Your task to perform on an android device: When is my next meeting? Image 0: 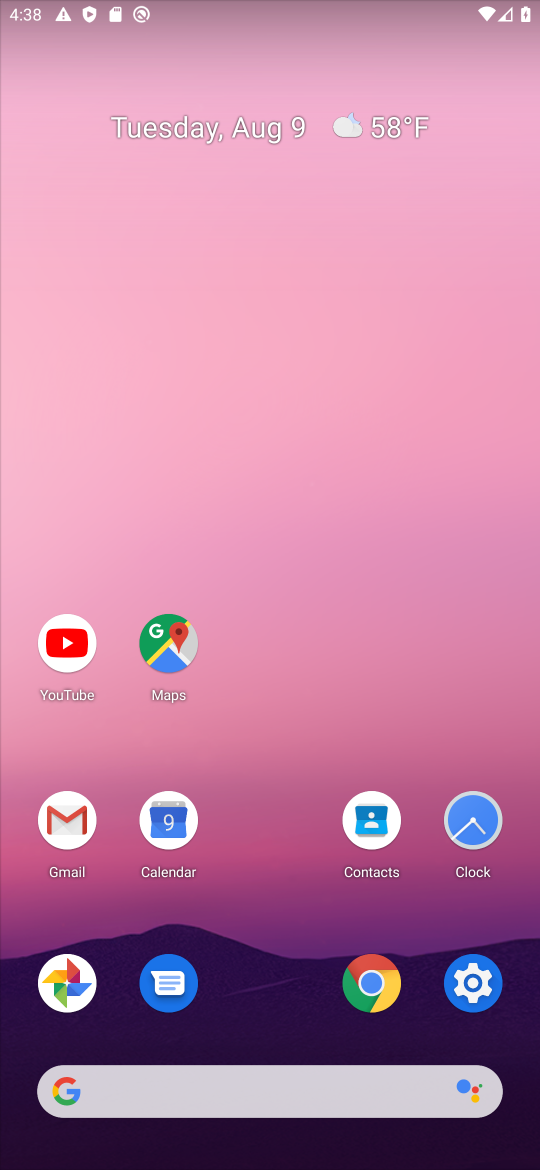
Step 0: click (174, 809)
Your task to perform on an android device: When is my next meeting? Image 1: 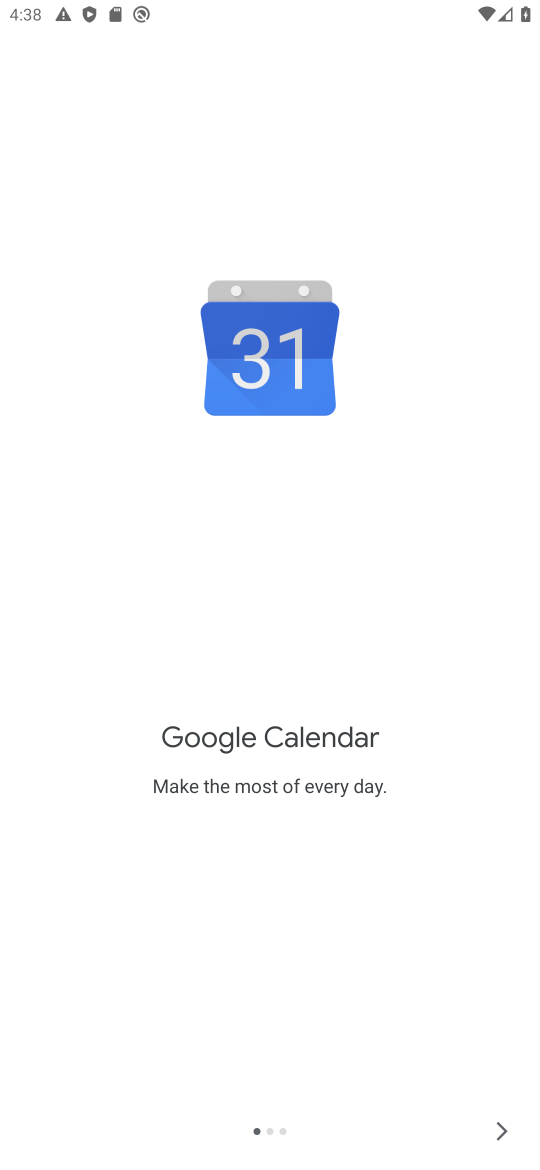
Step 1: click (507, 1133)
Your task to perform on an android device: When is my next meeting? Image 2: 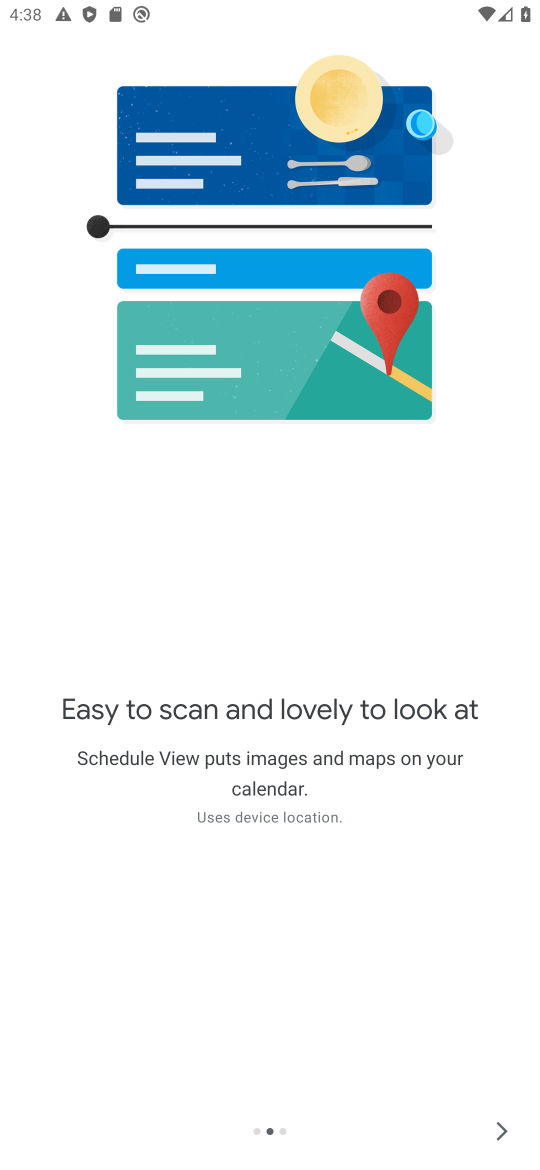
Step 2: click (507, 1133)
Your task to perform on an android device: When is my next meeting? Image 3: 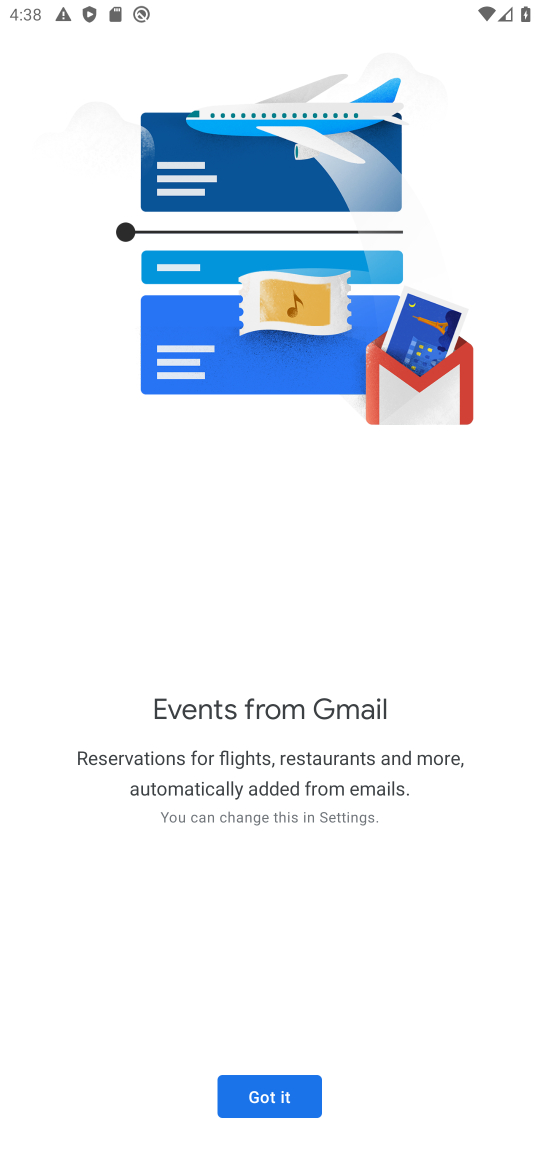
Step 3: click (297, 1093)
Your task to perform on an android device: When is my next meeting? Image 4: 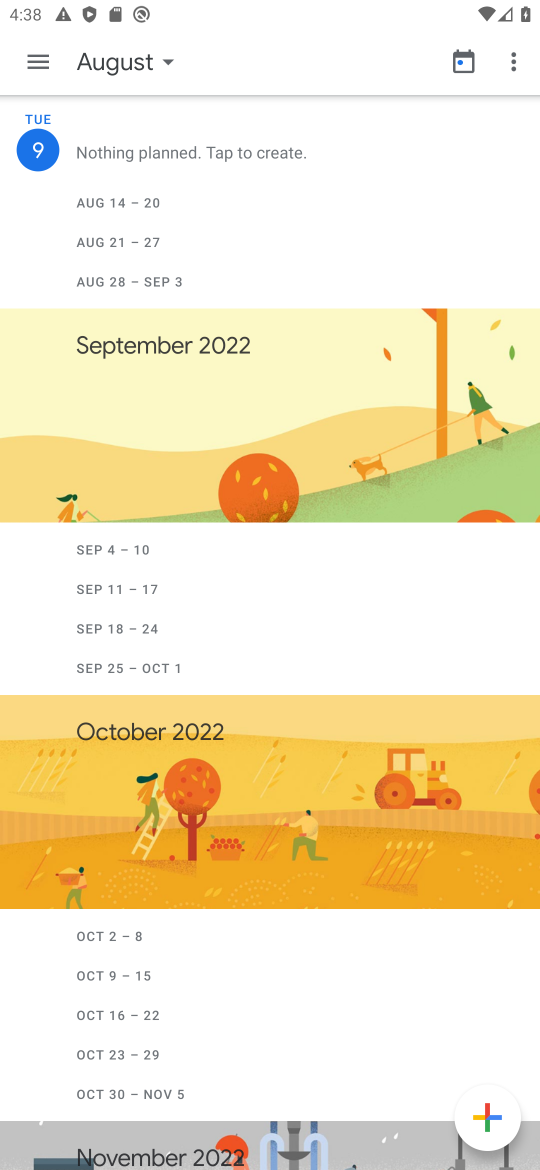
Step 4: click (36, 47)
Your task to perform on an android device: When is my next meeting? Image 5: 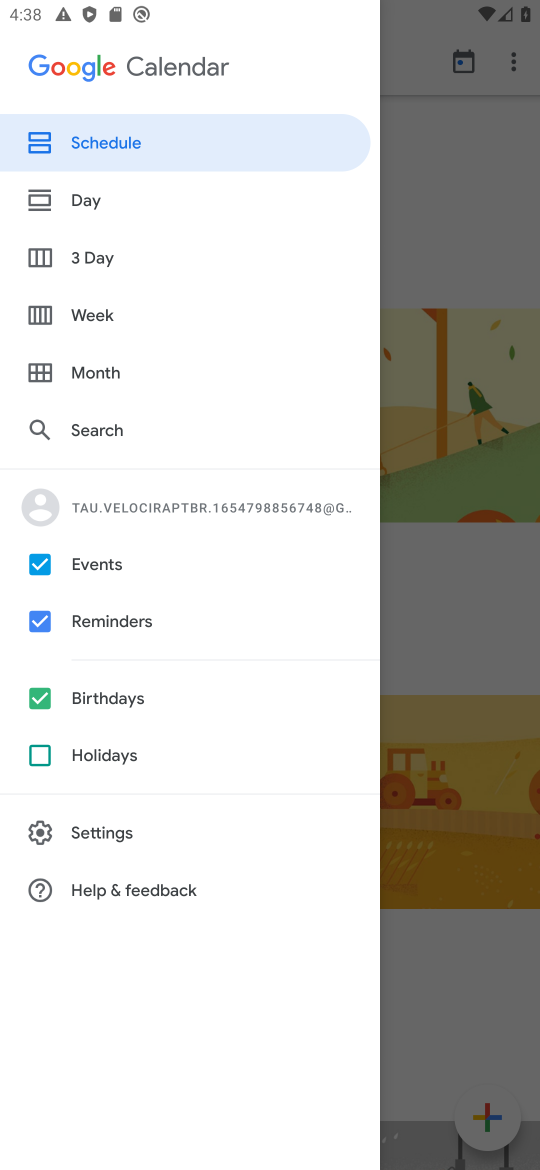
Step 5: click (84, 178)
Your task to perform on an android device: When is my next meeting? Image 6: 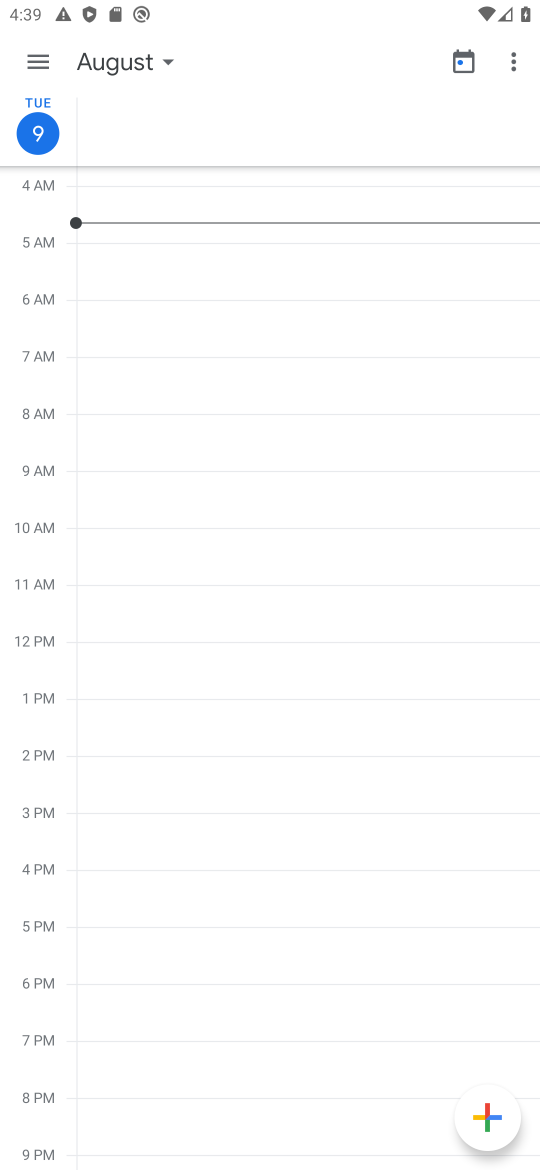
Step 6: task complete